Your task to perform on an android device: Add "macbook pro" to the cart on ebay Image 0: 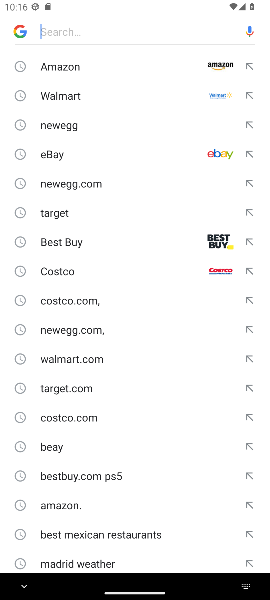
Step 0: click (105, 158)
Your task to perform on an android device: Add "macbook pro" to the cart on ebay Image 1: 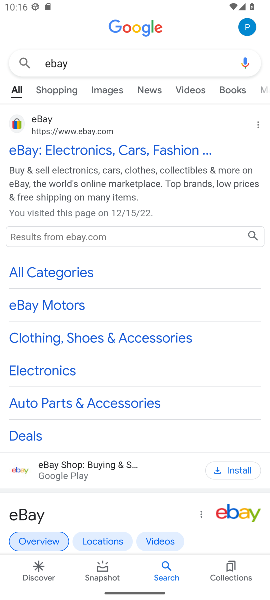
Step 1: click (100, 236)
Your task to perform on an android device: Add "macbook pro" to the cart on ebay Image 2: 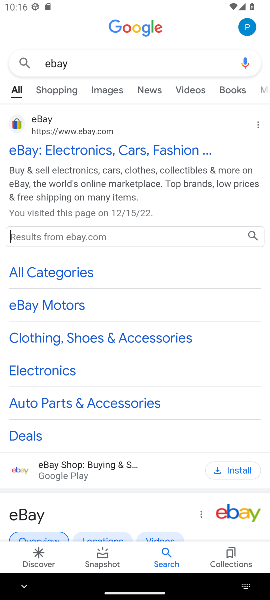
Step 2: type "macbook pro"
Your task to perform on an android device: Add "macbook pro" to the cart on ebay Image 3: 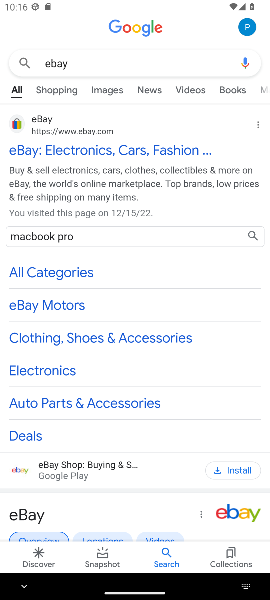
Step 3: click (251, 230)
Your task to perform on an android device: Add "macbook pro" to the cart on ebay Image 4: 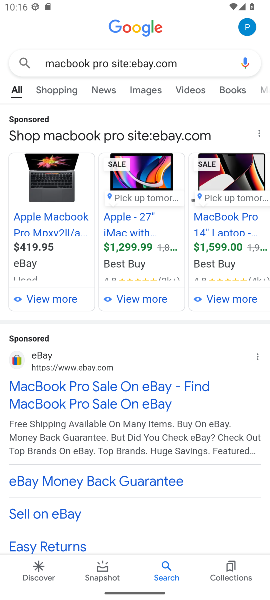
Step 4: click (35, 219)
Your task to perform on an android device: Add "macbook pro" to the cart on ebay Image 5: 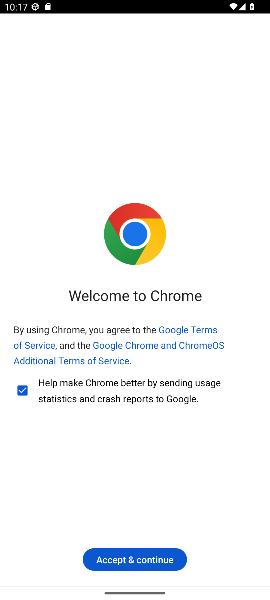
Step 5: click (157, 553)
Your task to perform on an android device: Add "macbook pro" to the cart on ebay Image 6: 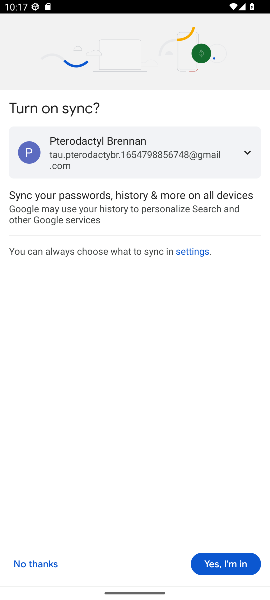
Step 6: click (229, 561)
Your task to perform on an android device: Add "macbook pro" to the cart on ebay Image 7: 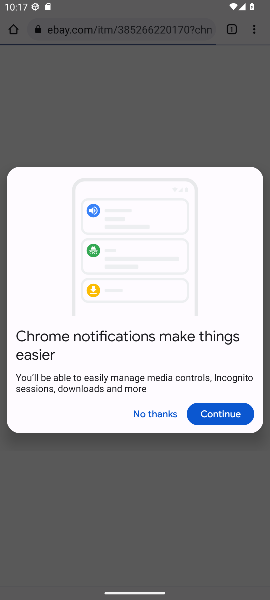
Step 7: click (162, 415)
Your task to perform on an android device: Add "macbook pro" to the cart on ebay Image 8: 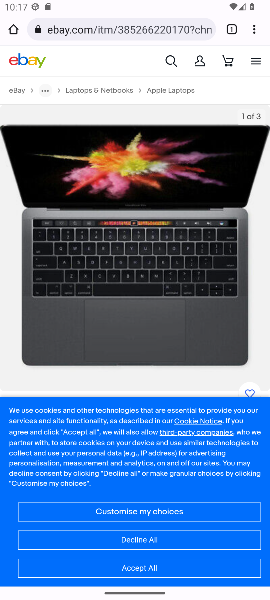
Step 8: drag from (171, 530) to (219, 190)
Your task to perform on an android device: Add "macbook pro" to the cart on ebay Image 9: 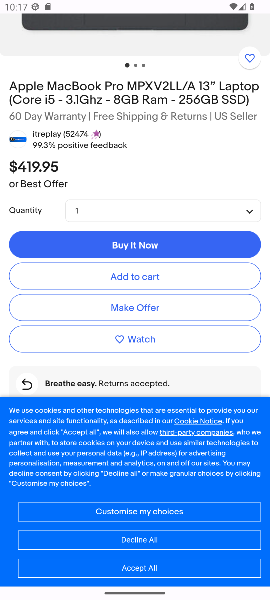
Step 9: click (152, 535)
Your task to perform on an android device: Add "macbook pro" to the cart on ebay Image 10: 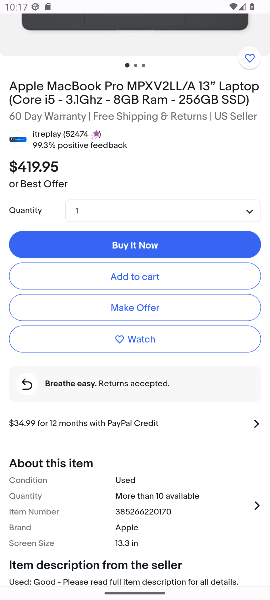
Step 10: click (146, 284)
Your task to perform on an android device: Add "macbook pro" to the cart on ebay Image 11: 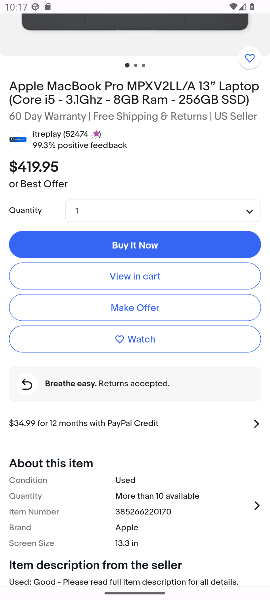
Step 11: task complete